Your task to perform on an android device: check battery use Image 0: 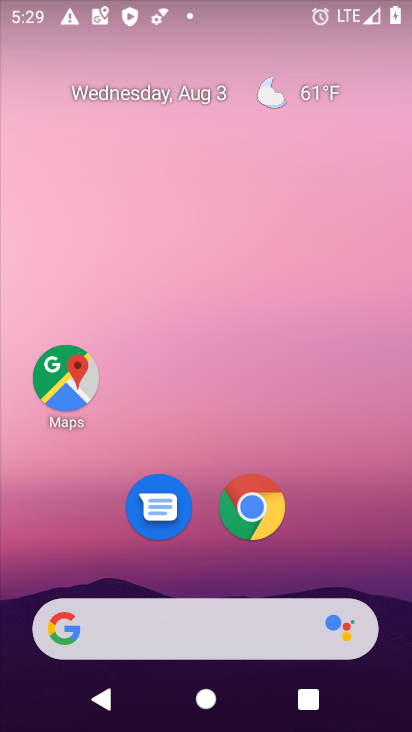
Step 0: drag from (318, 478) to (302, 0)
Your task to perform on an android device: check battery use Image 1: 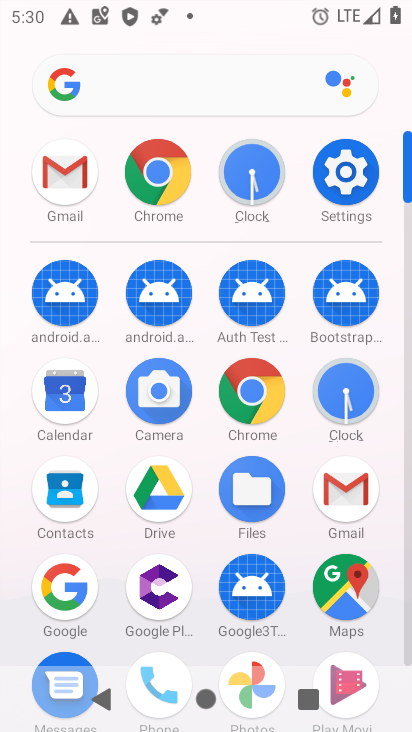
Step 1: click (343, 175)
Your task to perform on an android device: check battery use Image 2: 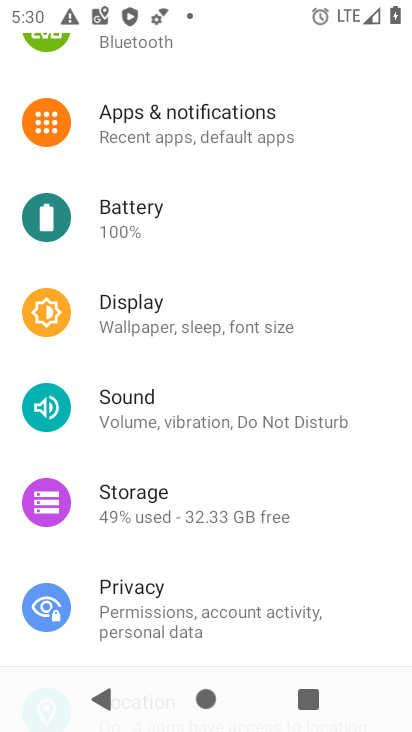
Step 2: click (168, 211)
Your task to perform on an android device: check battery use Image 3: 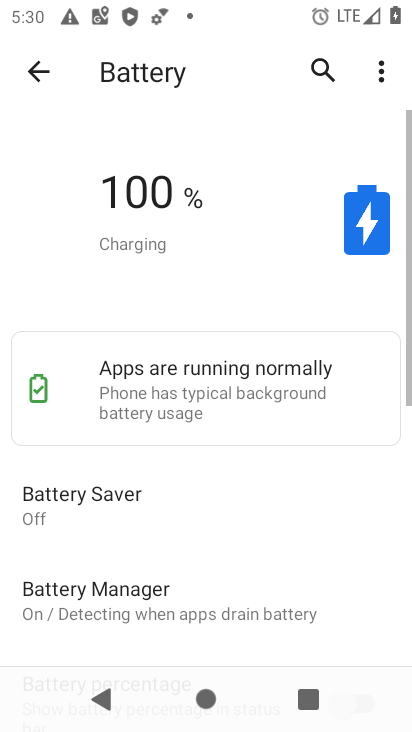
Step 3: click (382, 63)
Your task to perform on an android device: check battery use Image 4: 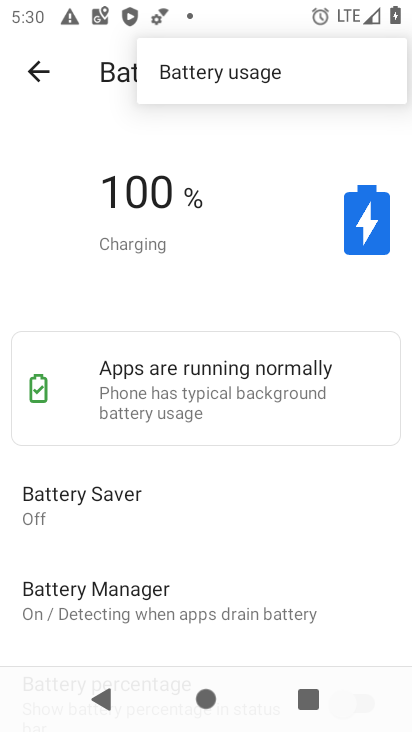
Step 4: click (253, 78)
Your task to perform on an android device: check battery use Image 5: 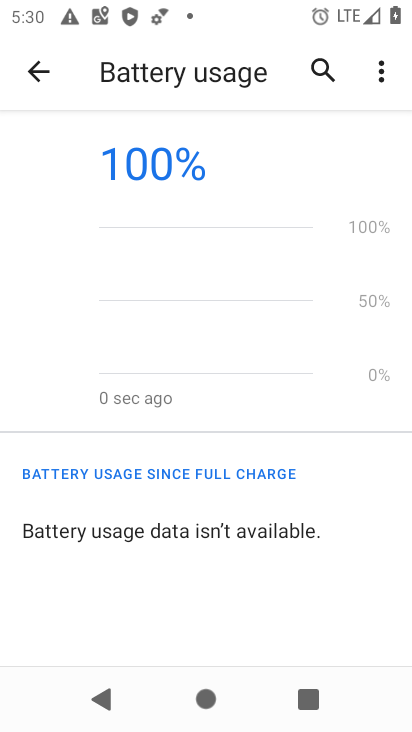
Step 5: task complete